Your task to perform on an android device: open app "Grab" (install if not already installed) and go to login screen Image 0: 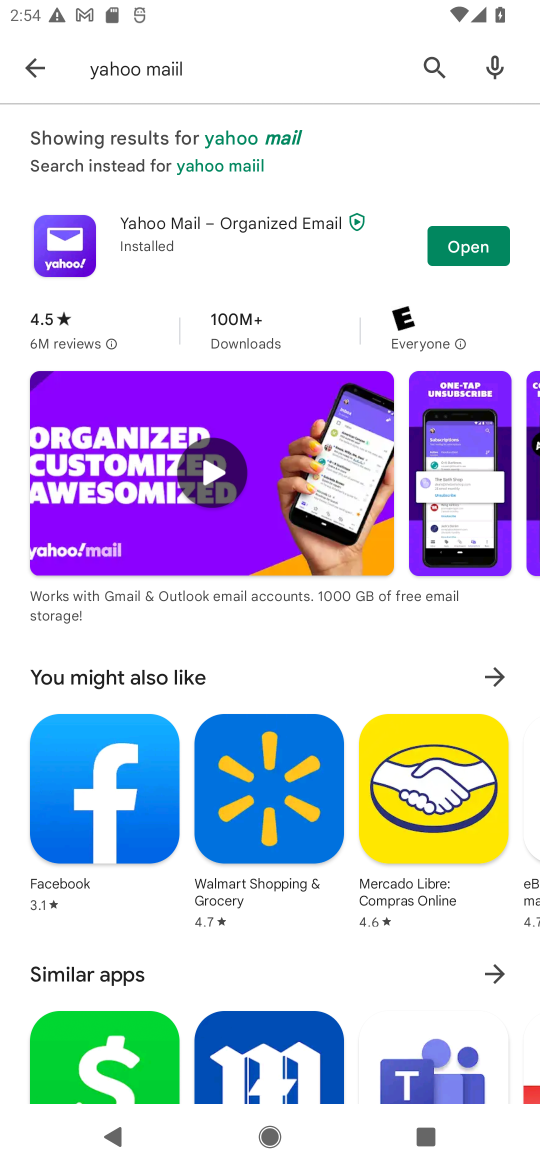
Step 0: click (212, 75)
Your task to perform on an android device: open app "Grab" (install if not already installed) and go to login screen Image 1: 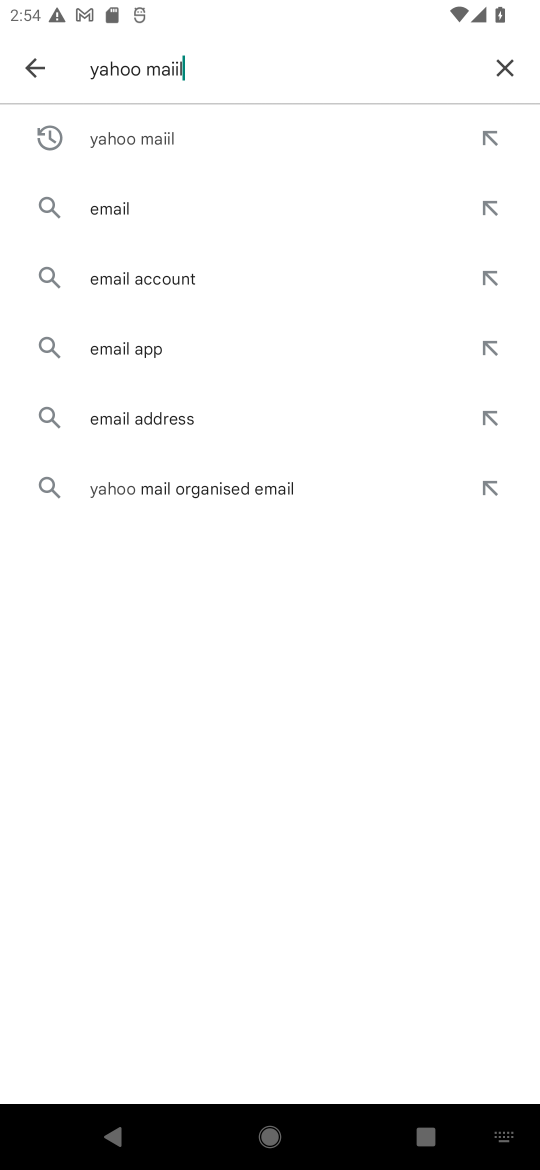
Step 1: click (508, 57)
Your task to perform on an android device: open app "Grab" (install if not already installed) and go to login screen Image 2: 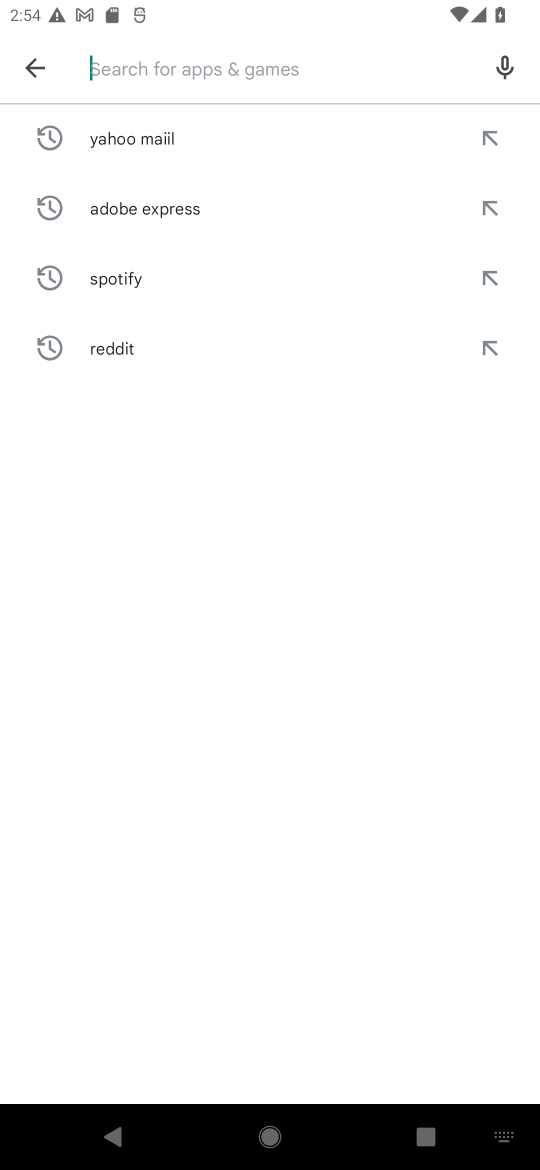
Step 2: type "Grab"
Your task to perform on an android device: open app "Grab" (install if not already installed) and go to login screen Image 3: 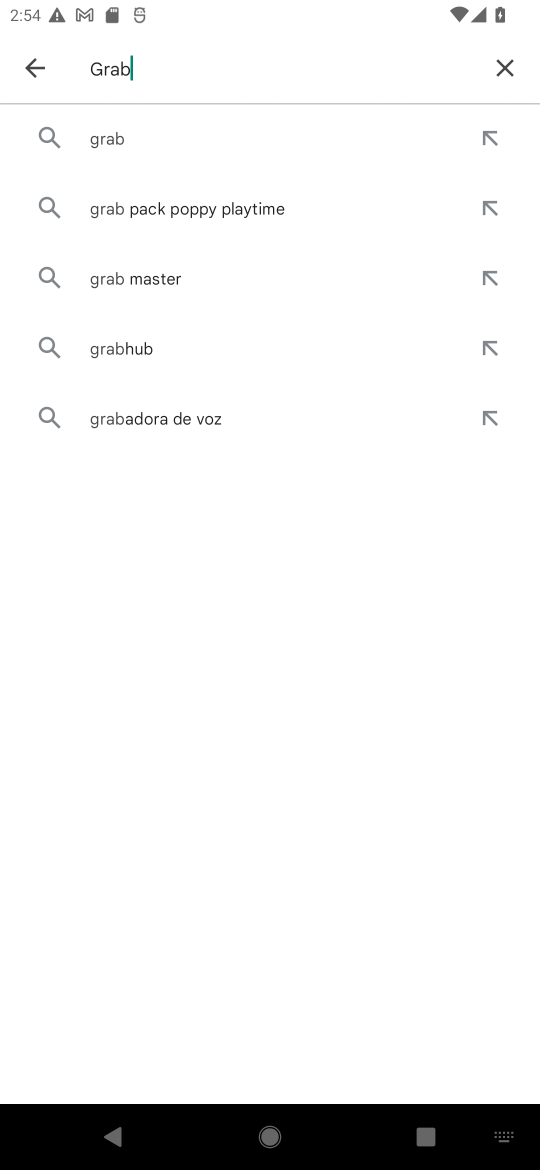
Step 3: click (157, 139)
Your task to perform on an android device: open app "Grab" (install if not already installed) and go to login screen Image 4: 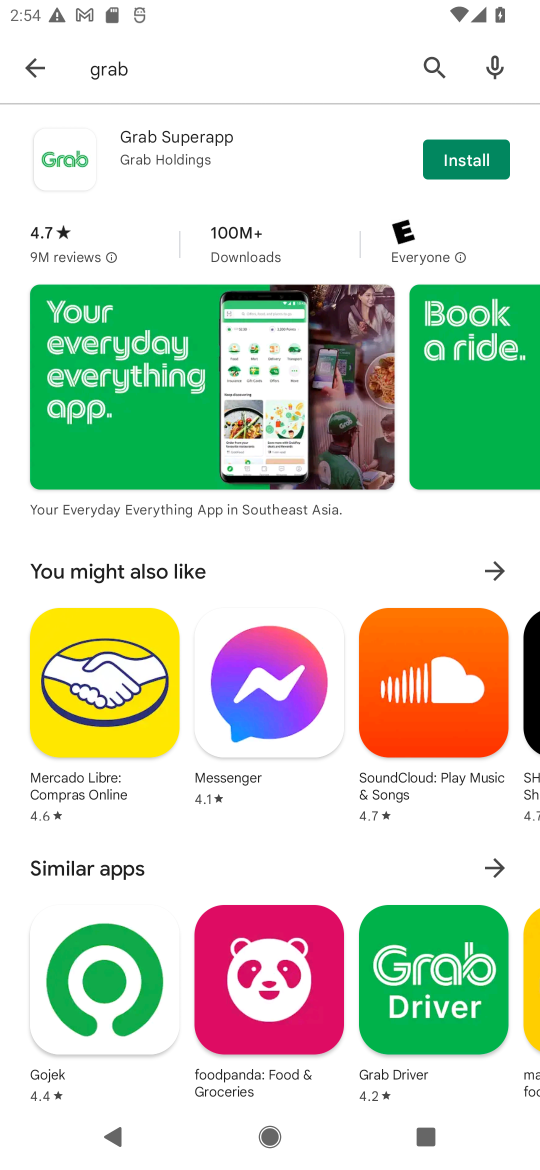
Step 4: click (465, 154)
Your task to perform on an android device: open app "Grab" (install if not already installed) and go to login screen Image 5: 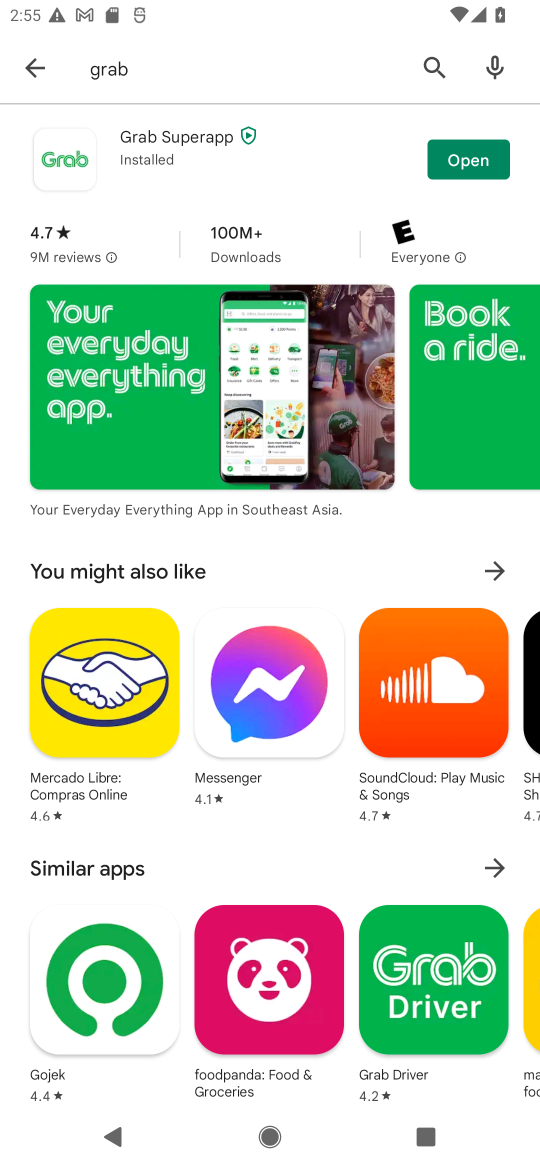
Step 5: click (464, 164)
Your task to perform on an android device: open app "Grab" (install if not already installed) and go to login screen Image 6: 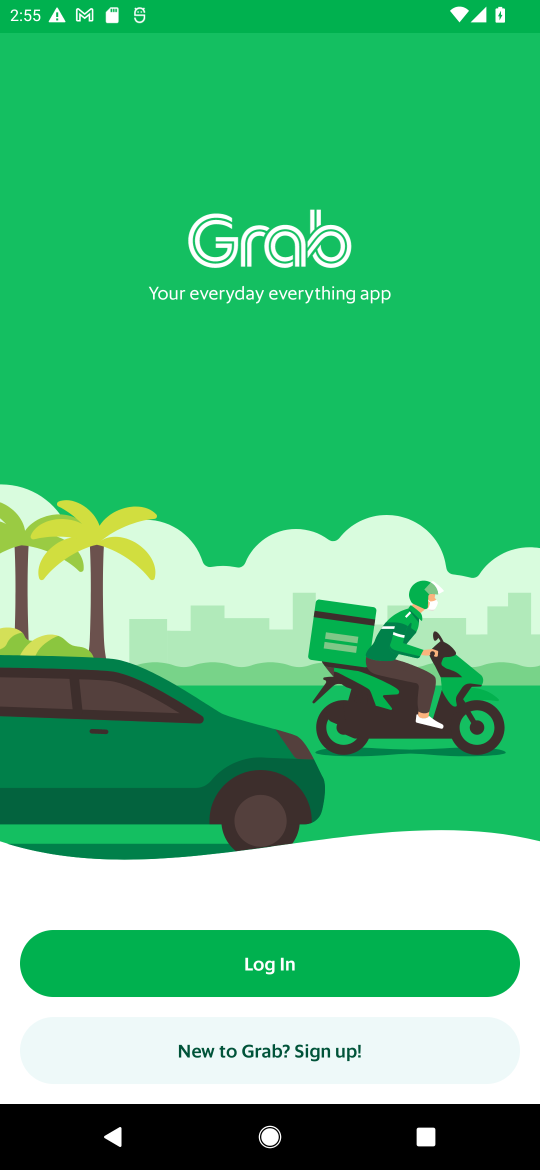
Step 6: click (319, 968)
Your task to perform on an android device: open app "Grab" (install if not already installed) and go to login screen Image 7: 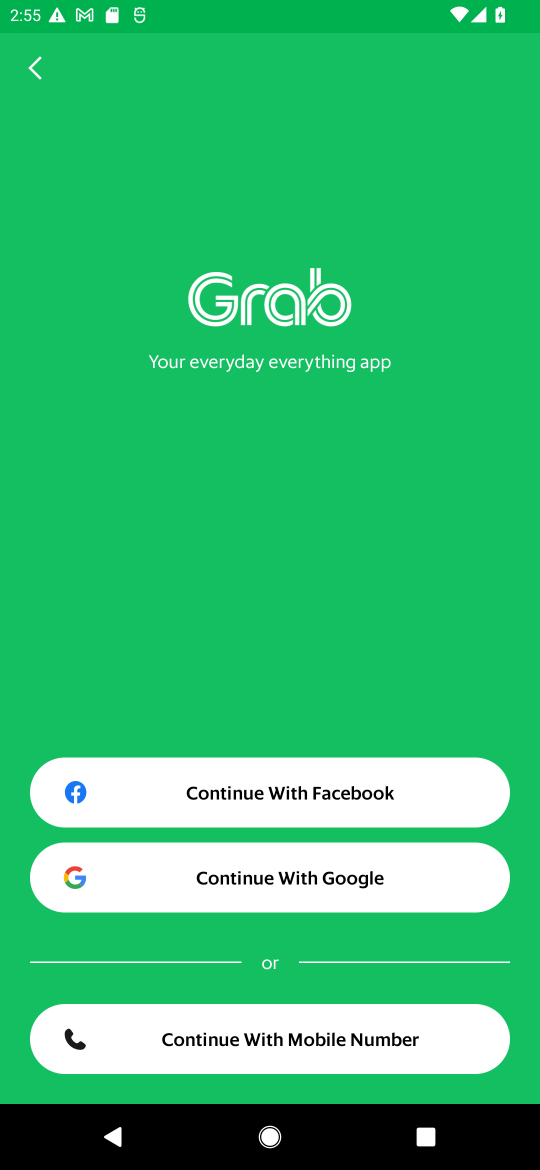
Step 7: click (343, 880)
Your task to perform on an android device: open app "Grab" (install if not already installed) and go to login screen Image 8: 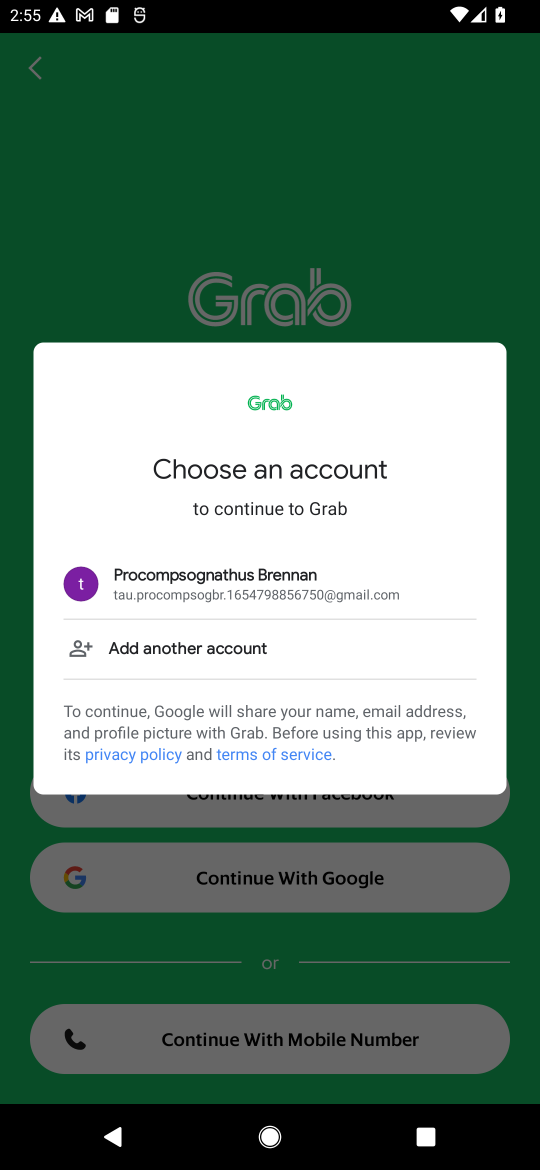
Step 8: click (253, 593)
Your task to perform on an android device: open app "Grab" (install if not already installed) and go to login screen Image 9: 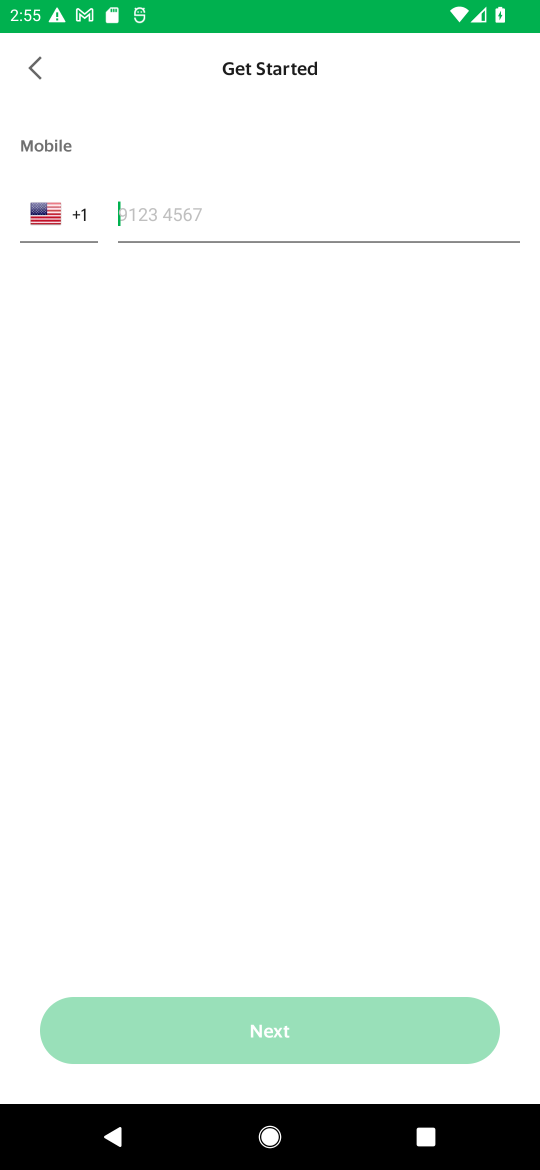
Step 9: task complete